Your task to perform on an android device: Check my email inbox Image 0: 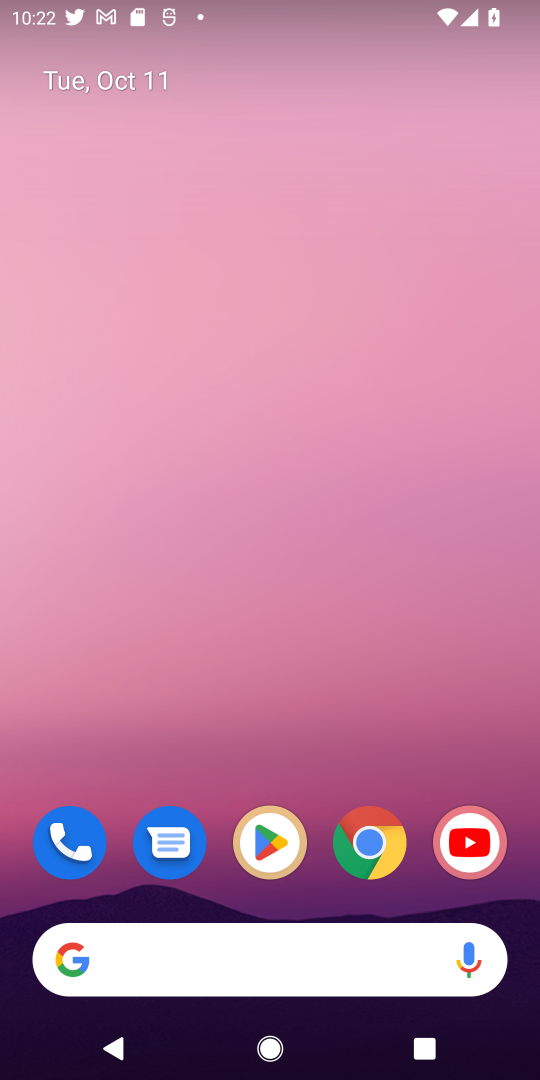
Step 0: drag from (328, 726) to (367, 0)
Your task to perform on an android device: Check my email inbox Image 1: 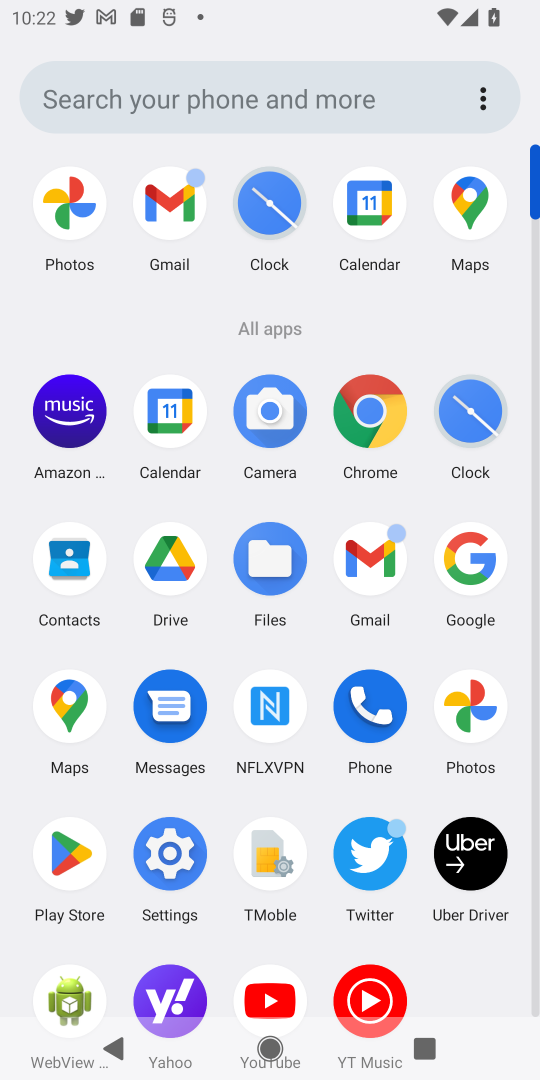
Step 1: click (368, 560)
Your task to perform on an android device: Check my email inbox Image 2: 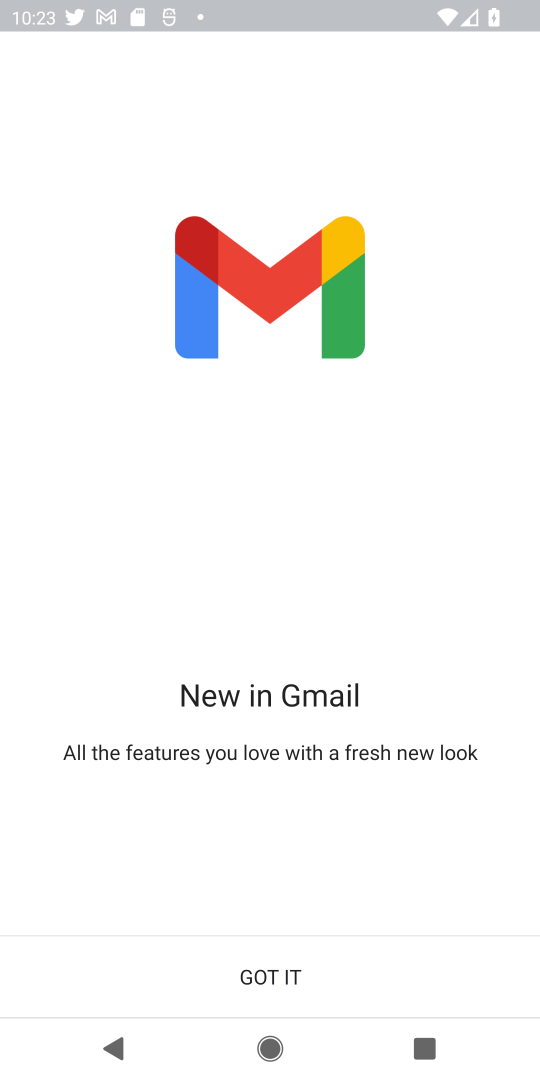
Step 2: click (310, 689)
Your task to perform on an android device: Check my email inbox Image 3: 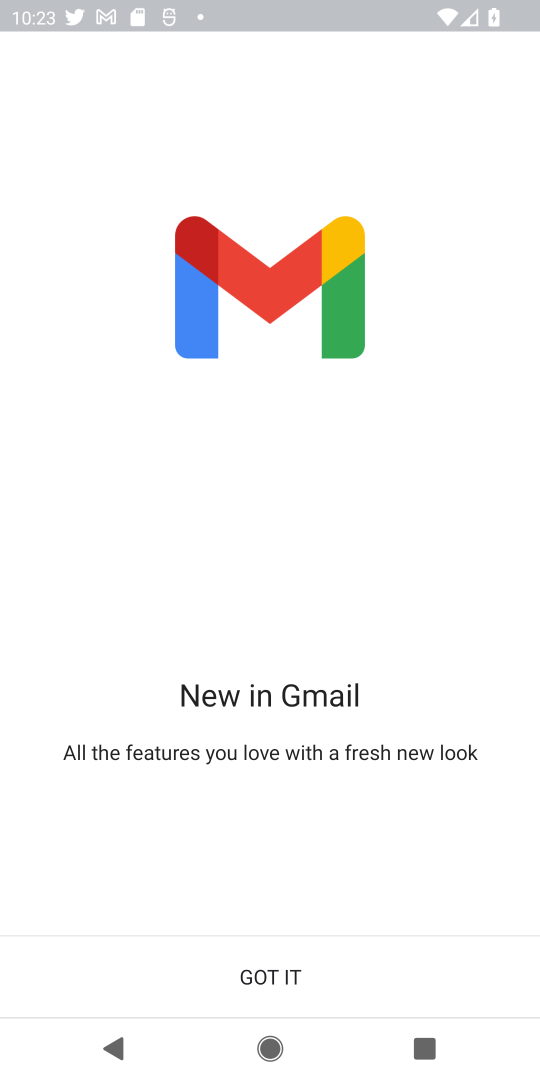
Step 3: click (263, 971)
Your task to perform on an android device: Check my email inbox Image 4: 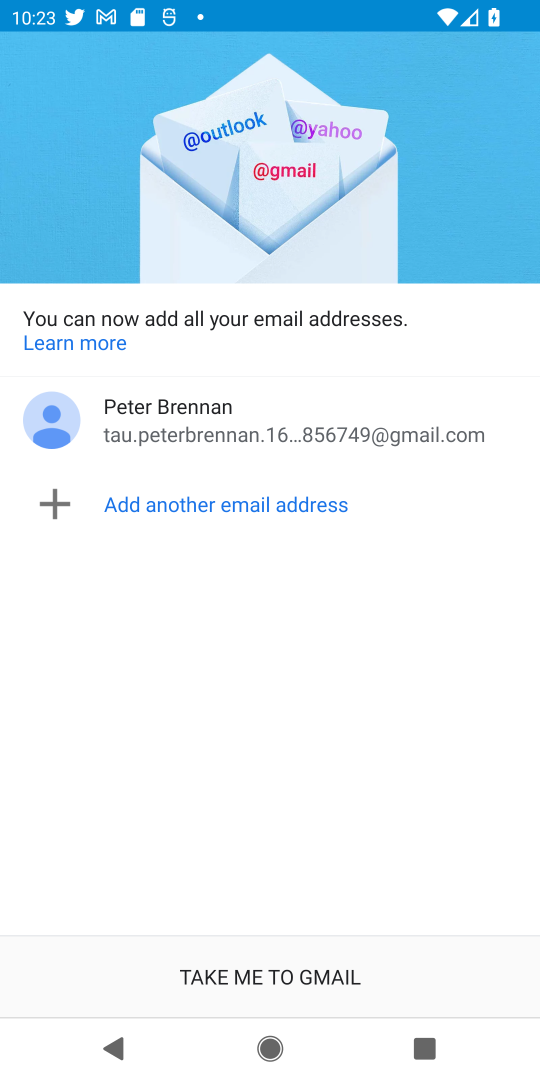
Step 4: click (206, 424)
Your task to perform on an android device: Check my email inbox Image 5: 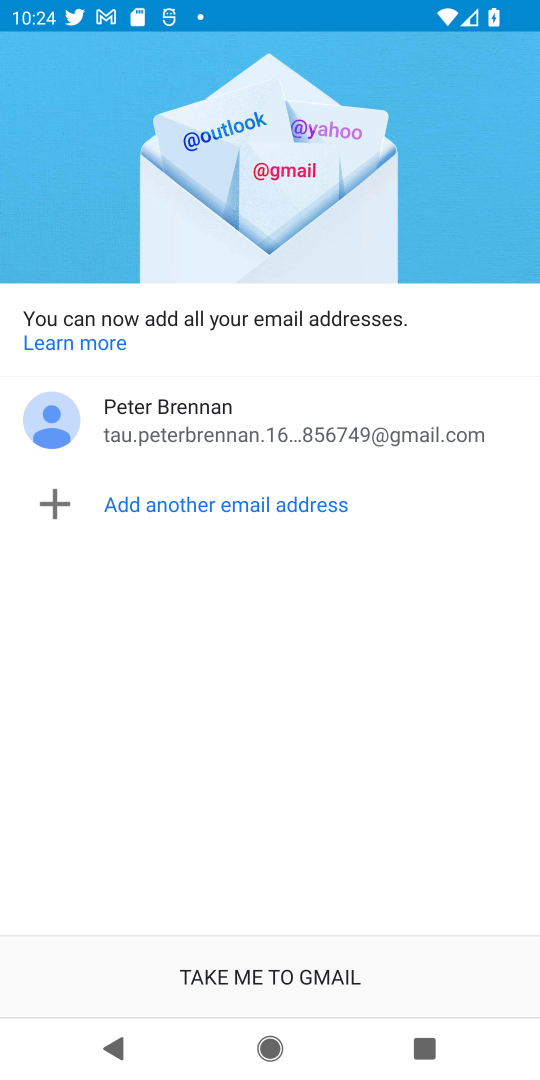
Step 5: click (330, 967)
Your task to perform on an android device: Check my email inbox Image 6: 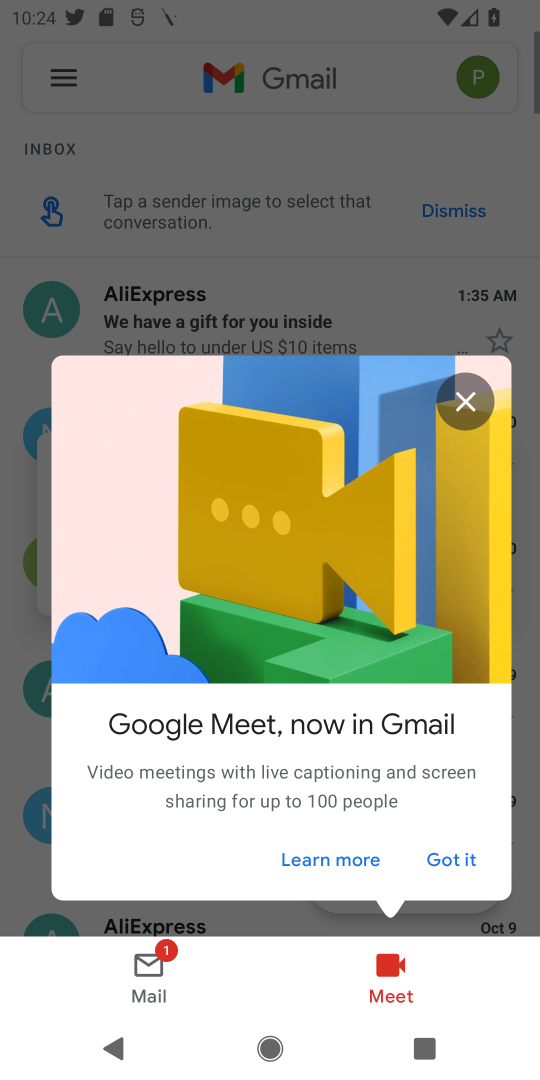
Step 6: click (456, 404)
Your task to perform on an android device: Check my email inbox Image 7: 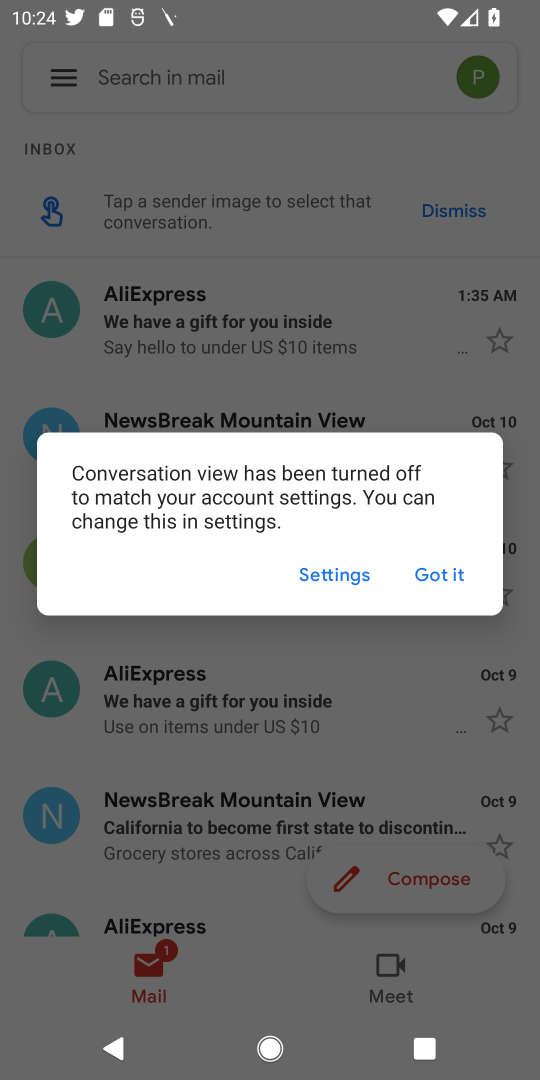
Step 7: click (431, 566)
Your task to perform on an android device: Check my email inbox Image 8: 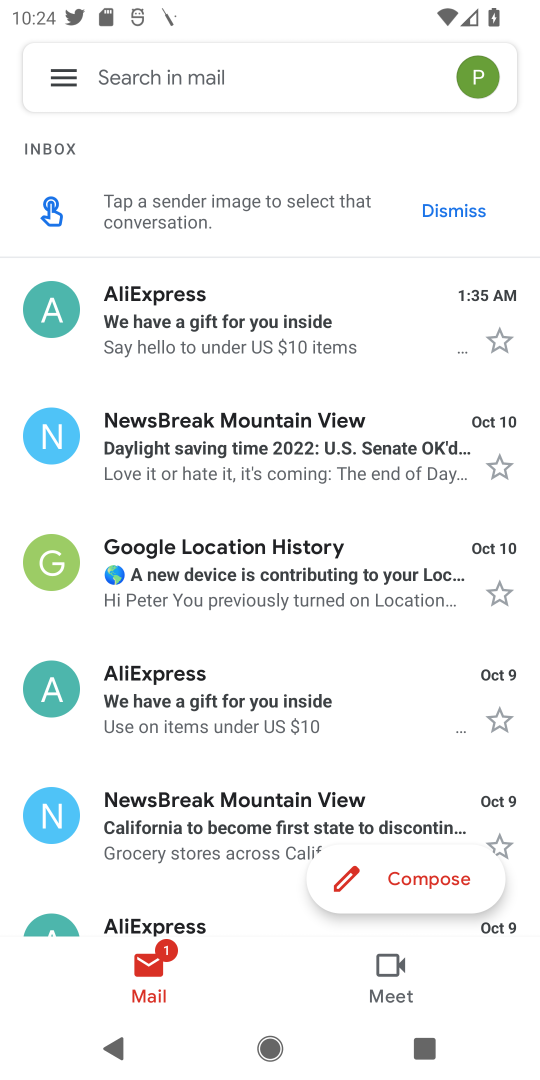
Step 8: task complete